Your task to perform on an android device: Go to accessibility settings Image 0: 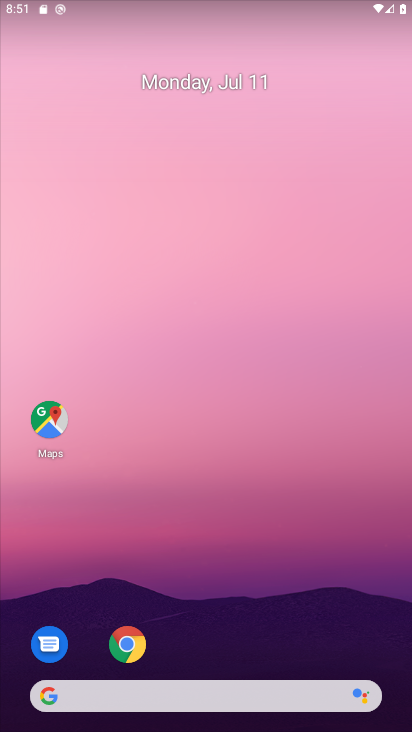
Step 0: drag from (208, 686) to (234, 351)
Your task to perform on an android device: Go to accessibility settings Image 1: 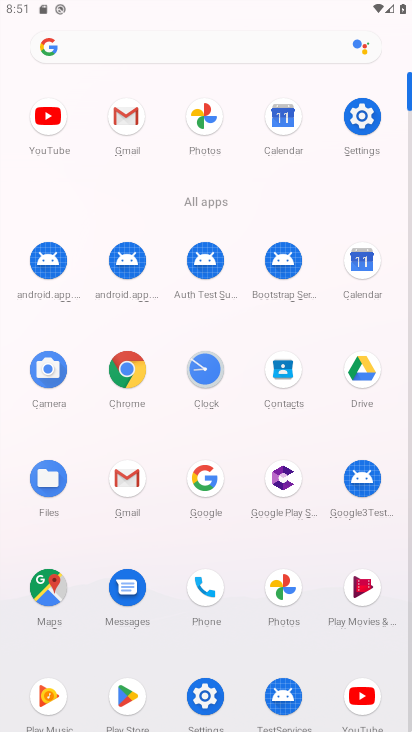
Step 1: click (359, 119)
Your task to perform on an android device: Go to accessibility settings Image 2: 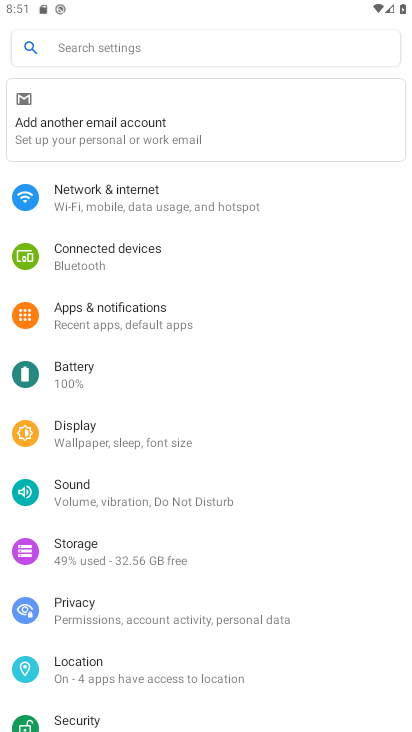
Step 2: drag from (184, 669) to (193, 277)
Your task to perform on an android device: Go to accessibility settings Image 3: 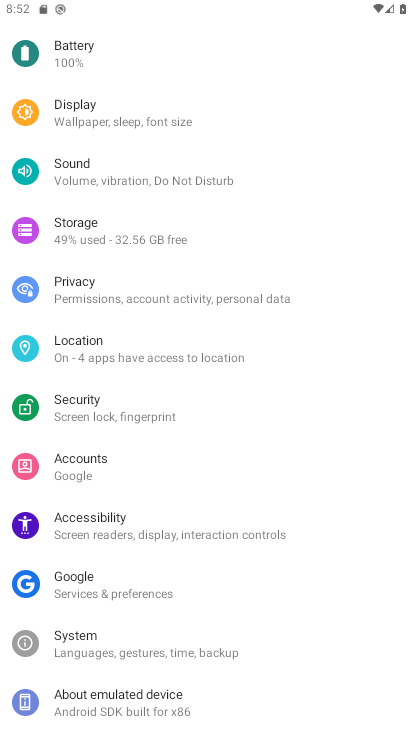
Step 3: click (119, 533)
Your task to perform on an android device: Go to accessibility settings Image 4: 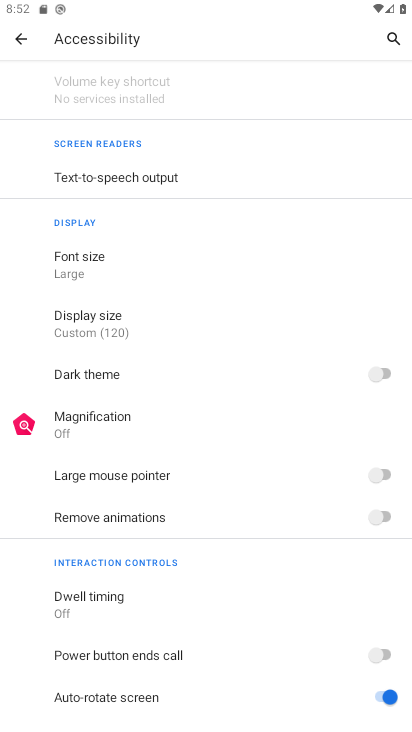
Step 4: task complete